Your task to perform on an android device: Search for Mexican restaurants on Maps Image 0: 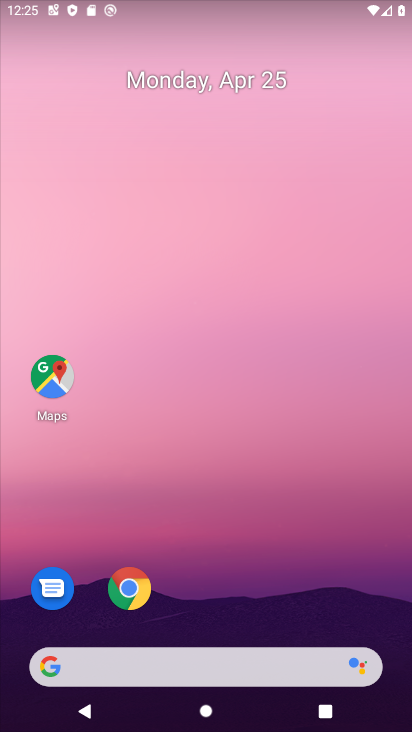
Step 0: drag from (175, 641) to (363, 0)
Your task to perform on an android device: Search for Mexican restaurants on Maps Image 1: 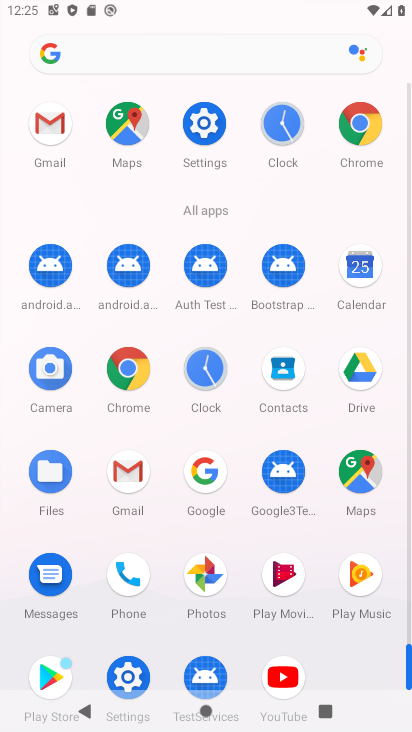
Step 1: click (362, 469)
Your task to perform on an android device: Search for Mexican restaurants on Maps Image 2: 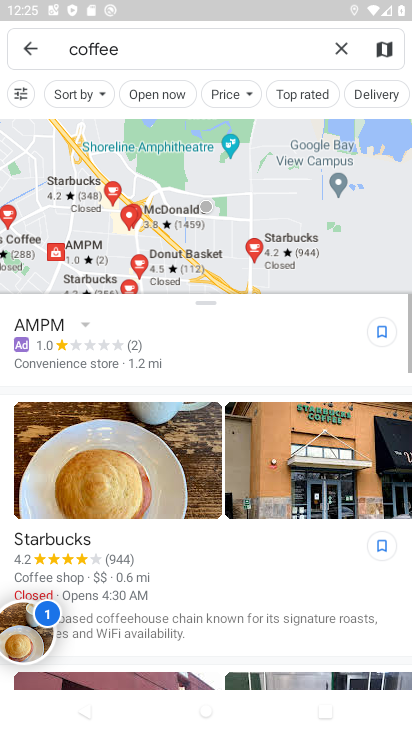
Step 2: click (336, 45)
Your task to perform on an android device: Search for Mexican restaurants on Maps Image 3: 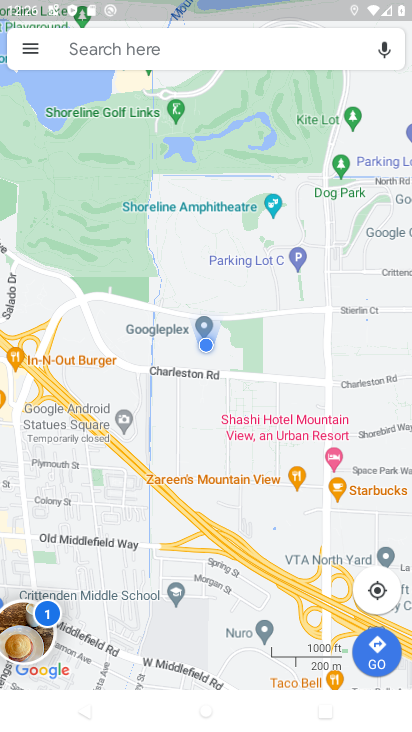
Step 3: click (194, 47)
Your task to perform on an android device: Search for Mexican restaurants on Maps Image 4: 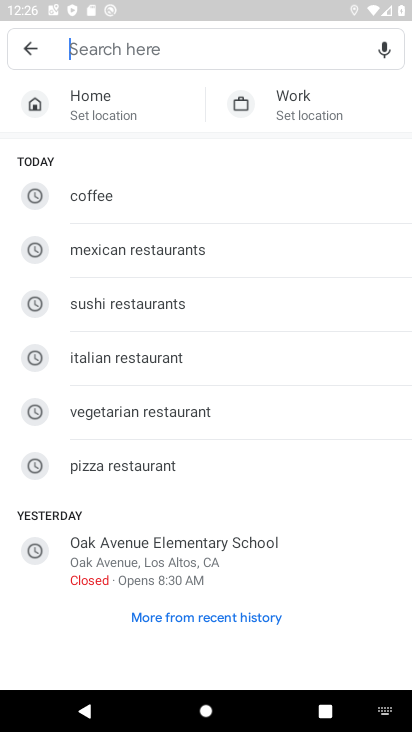
Step 4: type "Mexican restaurants "
Your task to perform on an android device: Search for Mexican restaurants on Maps Image 5: 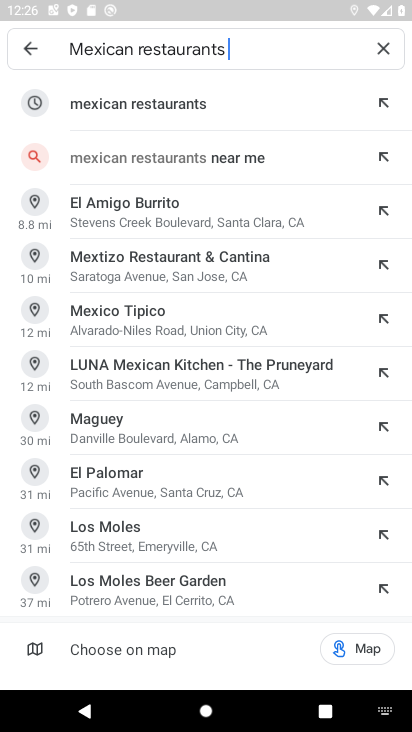
Step 5: click (183, 103)
Your task to perform on an android device: Search for Mexican restaurants on Maps Image 6: 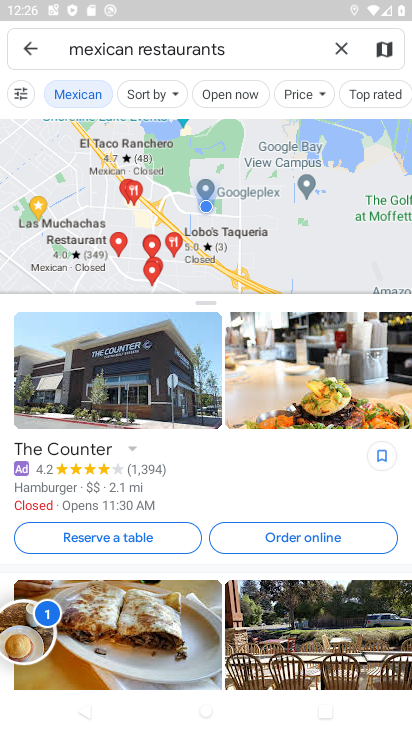
Step 6: task complete